Your task to perform on an android device: clear all cookies in the chrome app Image 0: 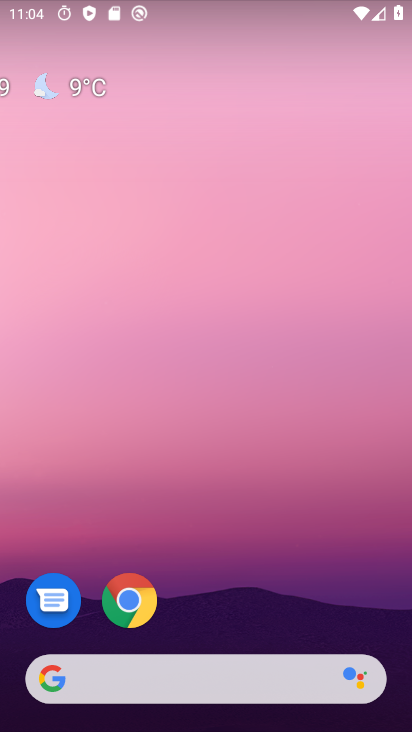
Step 0: drag from (166, 639) to (352, 8)
Your task to perform on an android device: clear all cookies in the chrome app Image 1: 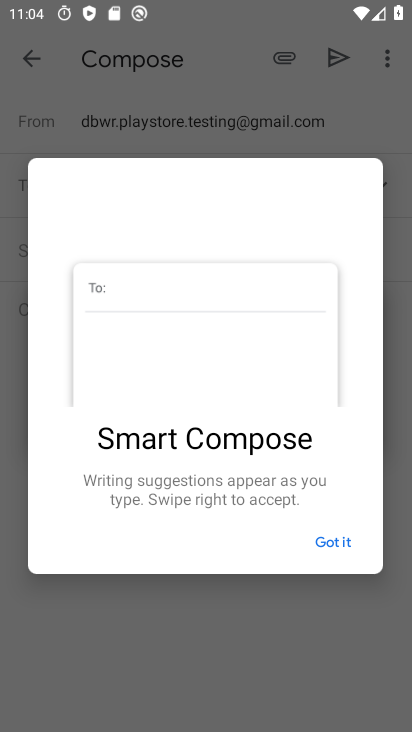
Step 1: press home button
Your task to perform on an android device: clear all cookies in the chrome app Image 2: 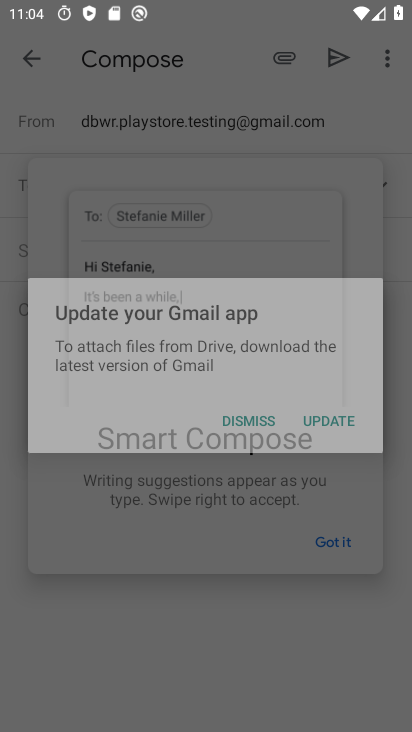
Step 2: drag from (352, 8) to (372, 490)
Your task to perform on an android device: clear all cookies in the chrome app Image 3: 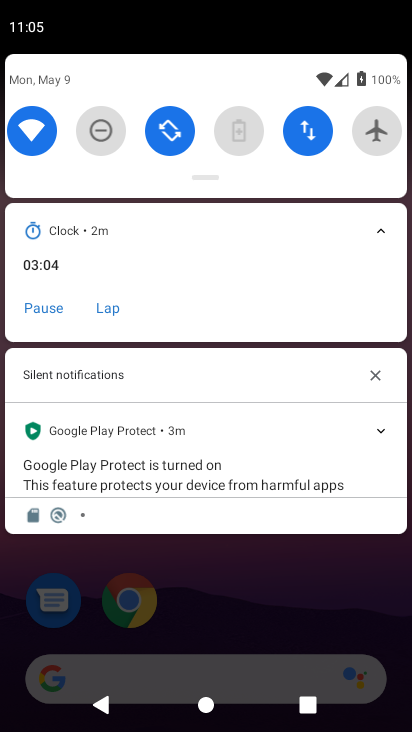
Step 3: drag from (207, 630) to (300, 151)
Your task to perform on an android device: clear all cookies in the chrome app Image 4: 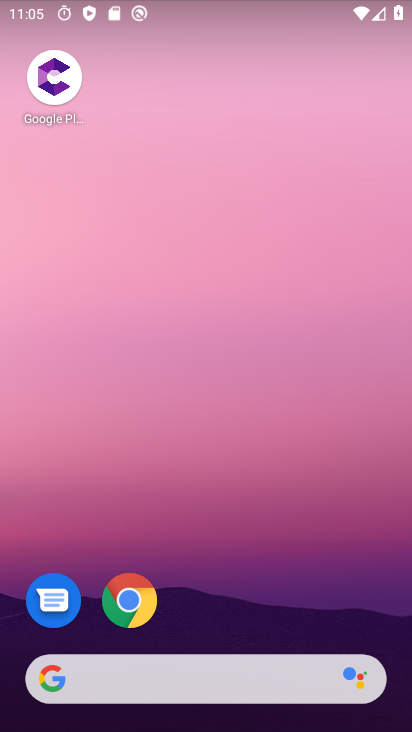
Step 4: press home button
Your task to perform on an android device: clear all cookies in the chrome app Image 5: 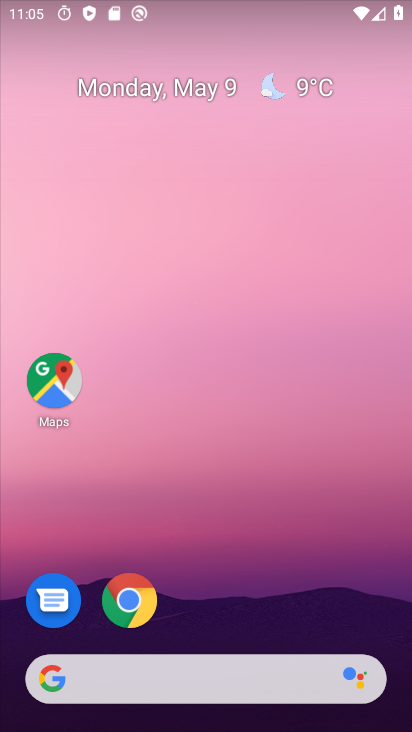
Step 5: click (139, 612)
Your task to perform on an android device: clear all cookies in the chrome app Image 6: 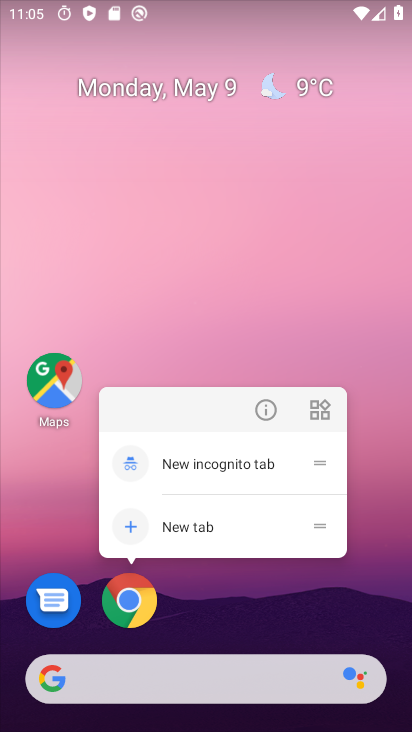
Step 6: click (139, 610)
Your task to perform on an android device: clear all cookies in the chrome app Image 7: 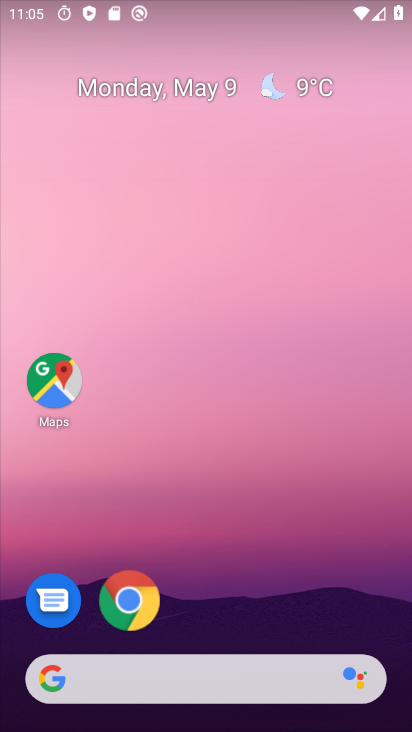
Step 7: click (121, 593)
Your task to perform on an android device: clear all cookies in the chrome app Image 8: 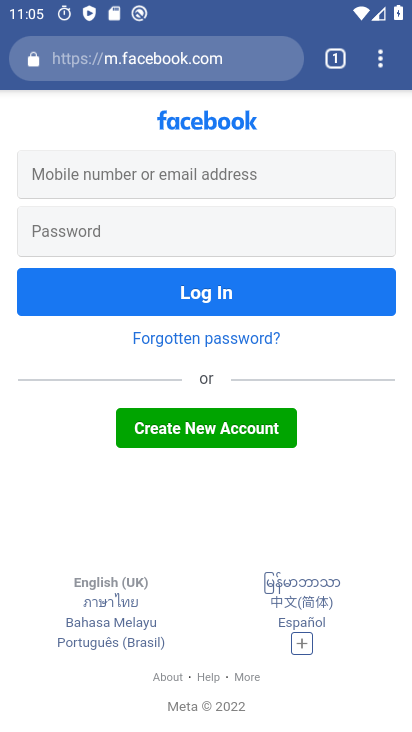
Step 8: drag from (385, 61) to (229, 610)
Your task to perform on an android device: clear all cookies in the chrome app Image 9: 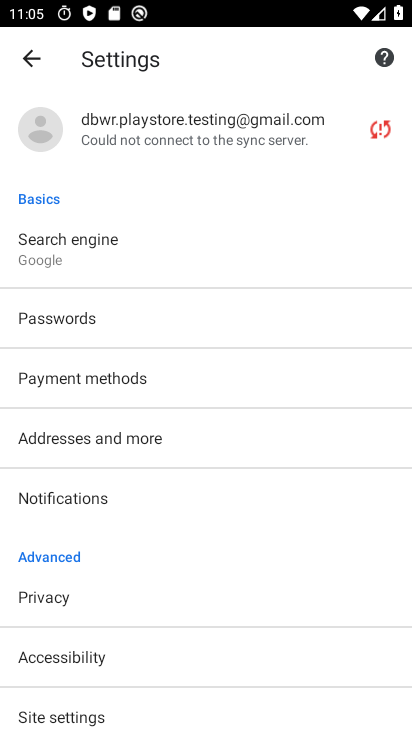
Step 9: drag from (100, 652) to (173, 419)
Your task to perform on an android device: clear all cookies in the chrome app Image 10: 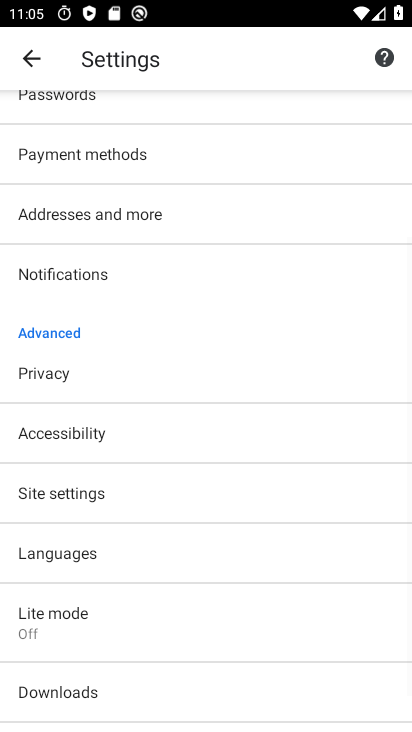
Step 10: click (170, 371)
Your task to perform on an android device: clear all cookies in the chrome app Image 11: 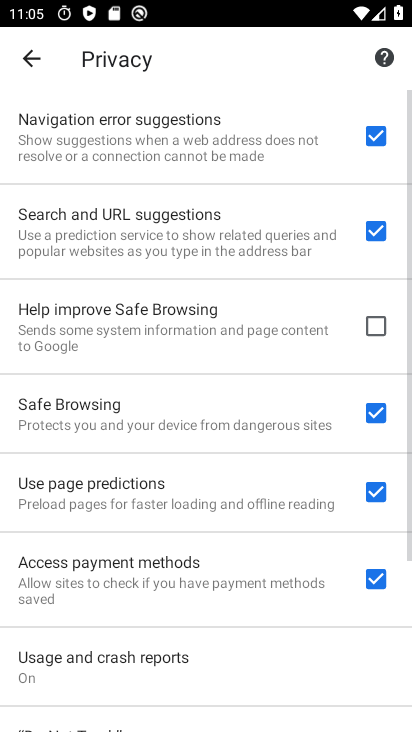
Step 11: drag from (109, 704) to (353, 186)
Your task to perform on an android device: clear all cookies in the chrome app Image 12: 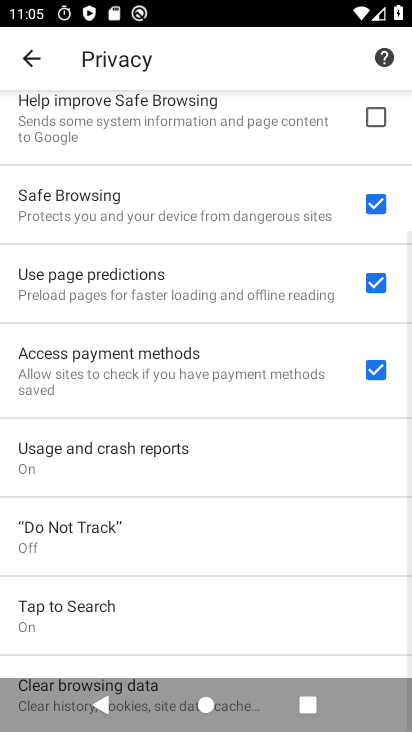
Step 12: click (170, 670)
Your task to perform on an android device: clear all cookies in the chrome app Image 13: 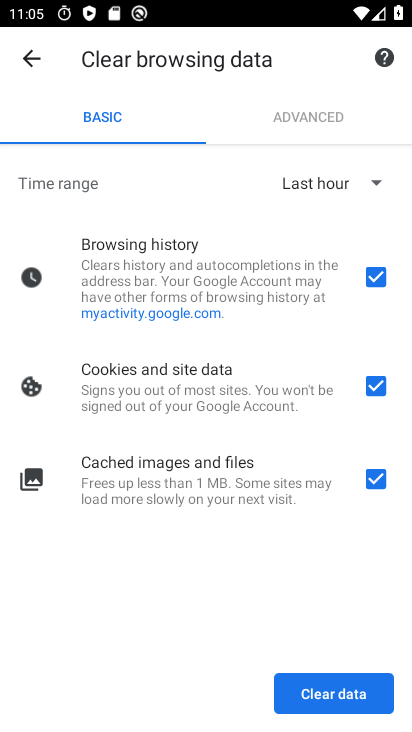
Step 13: click (381, 286)
Your task to perform on an android device: clear all cookies in the chrome app Image 14: 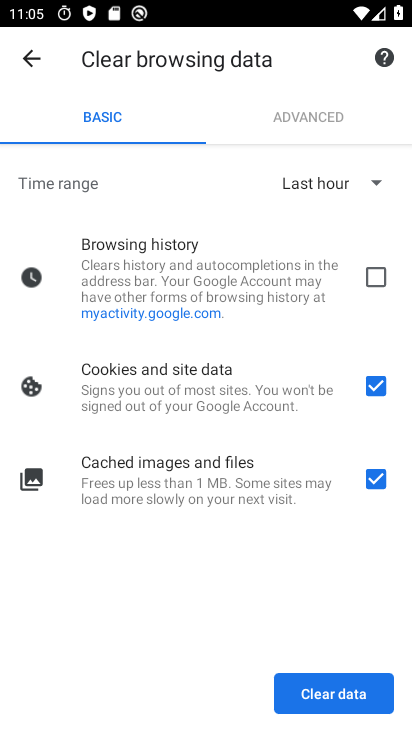
Step 14: click (377, 488)
Your task to perform on an android device: clear all cookies in the chrome app Image 15: 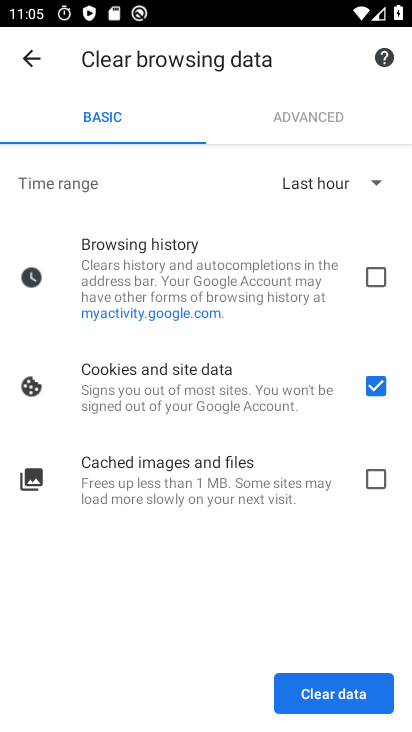
Step 15: click (348, 693)
Your task to perform on an android device: clear all cookies in the chrome app Image 16: 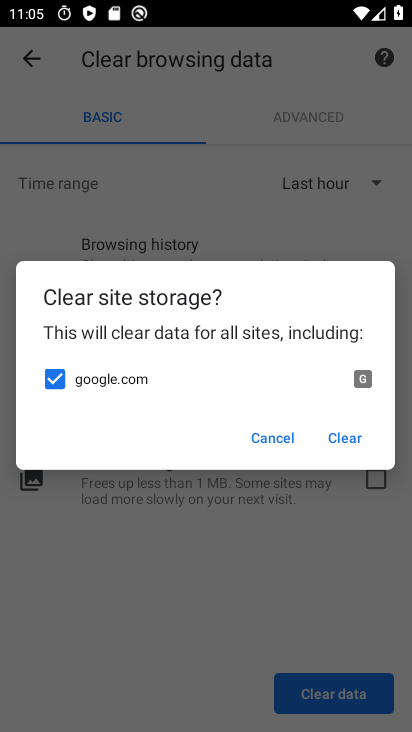
Step 16: click (350, 439)
Your task to perform on an android device: clear all cookies in the chrome app Image 17: 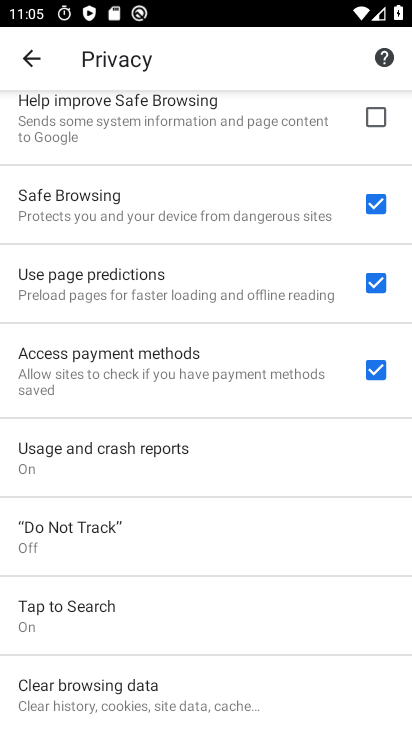
Step 17: task complete